Your task to perform on an android device: turn off location history Image 0: 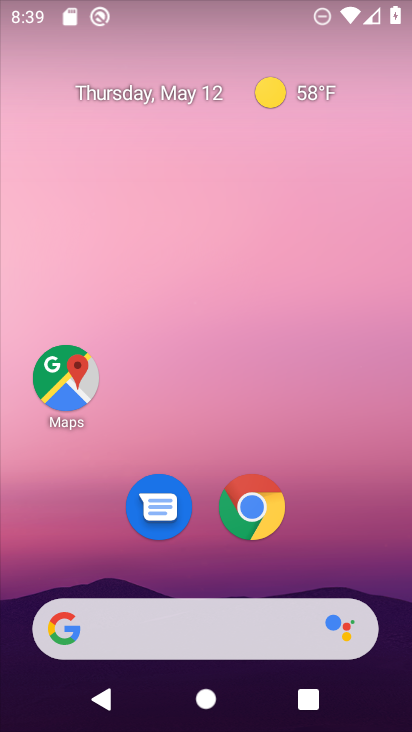
Step 0: drag from (188, 560) to (205, 231)
Your task to perform on an android device: turn off location history Image 1: 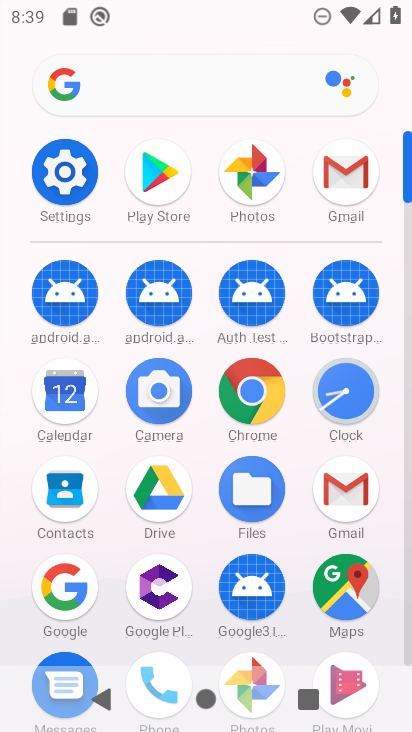
Step 1: click (44, 161)
Your task to perform on an android device: turn off location history Image 2: 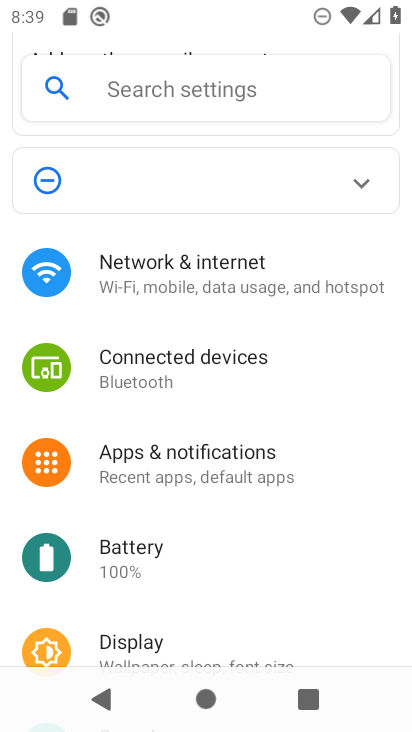
Step 2: drag from (221, 558) to (249, 343)
Your task to perform on an android device: turn off location history Image 3: 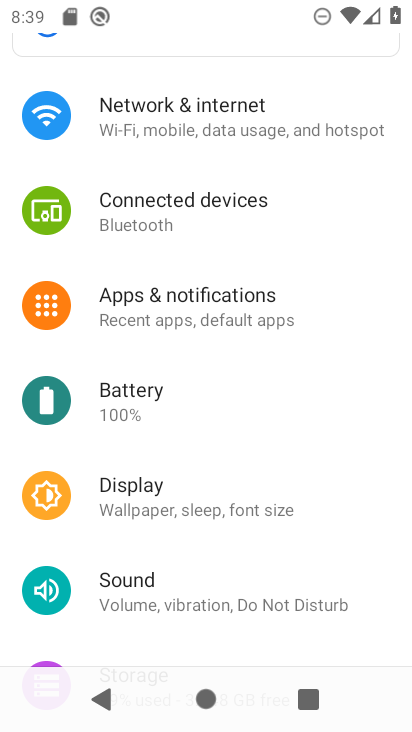
Step 3: drag from (202, 570) to (219, 302)
Your task to perform on an android device: turn off location history Image 4: 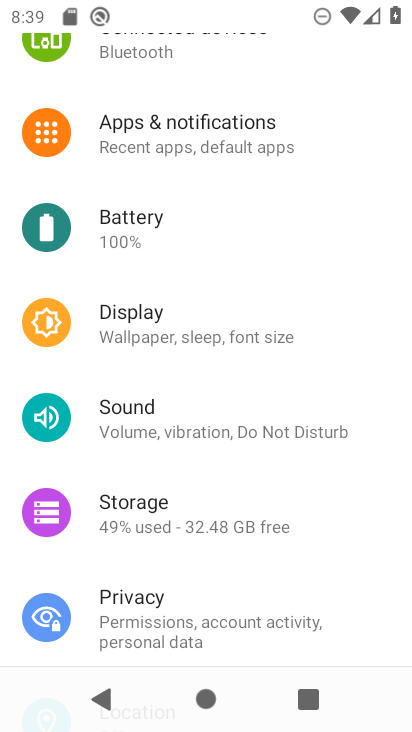
Step 4: drag from (162, 583) to (215, 359)
Your task to perform on an android device: turn off location history Image 5: 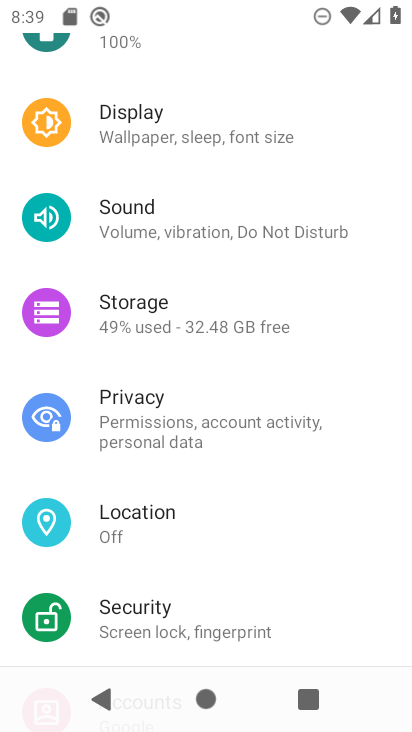
Step 5: click (158, 512)
Your task to perform on an android device: turn off location history Image 6: 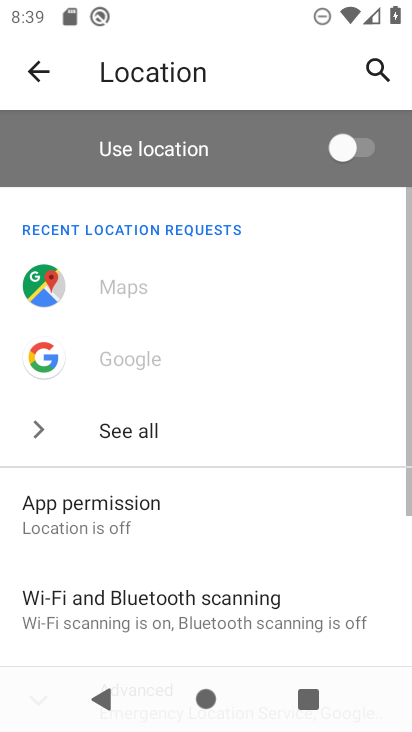
Step 6: drag from (174, 564) to (164, 274)
Your task to perform on an android device: turn off location history Image 7: 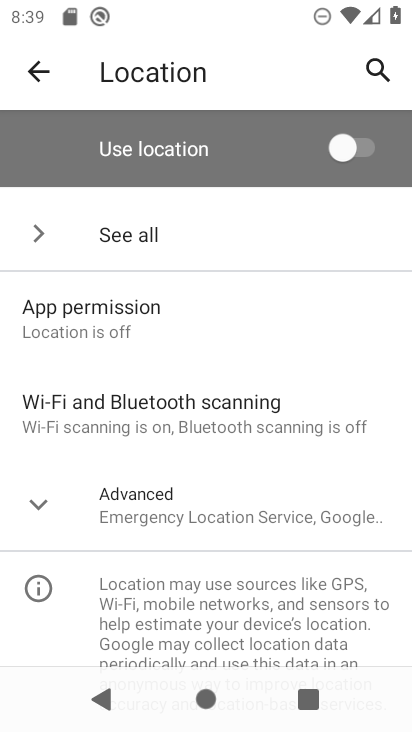
Step 7: click (174, 498)
Your task to perform on an android device: turn off location history Image 8: 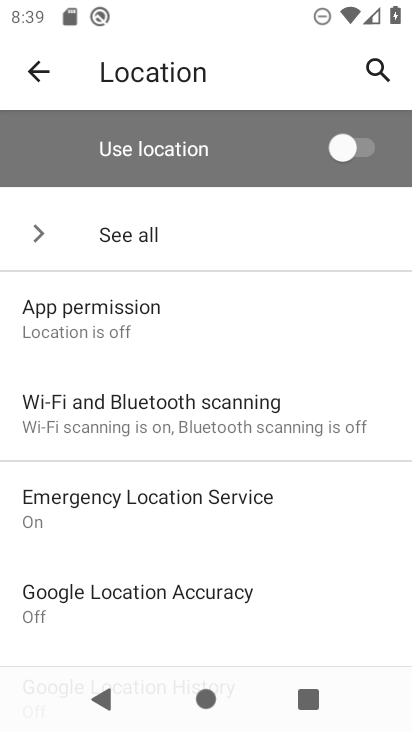
Step 8: drag from (210, 595) to (232, 366)
Your task to perform on an android device: turn off location history Image 9: 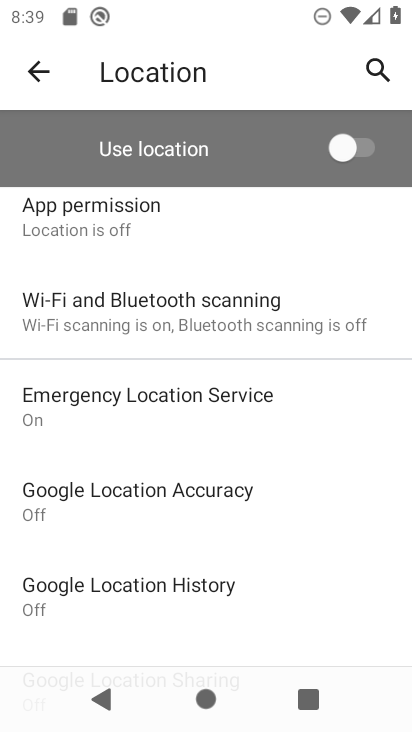
Step 9: click (197, 595)
Your task to perform on an android device: turn off location history Image 10: 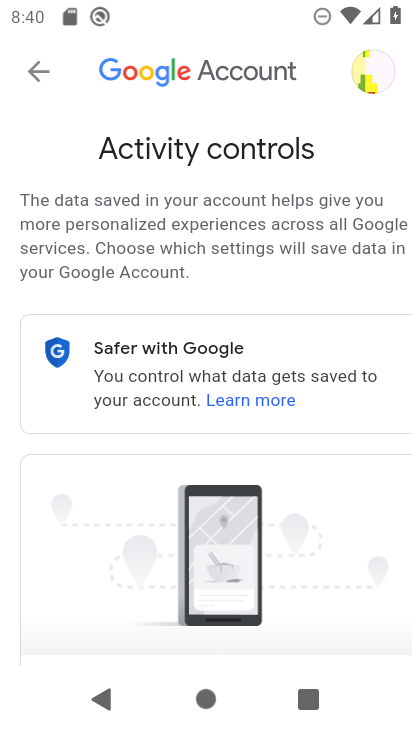
Step 10: task complete